Your task to perform on an android device: Go to calendar. Show me events next week Image 0: 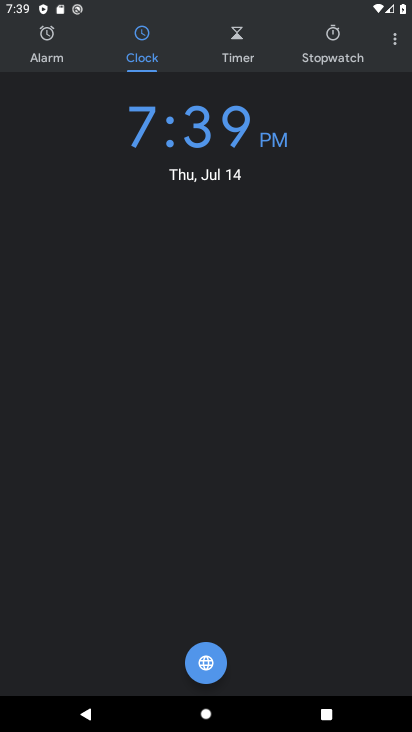
Step 0: press home button
Your task to perform on an android device: Go to calendar. Show me events next week Image 1: 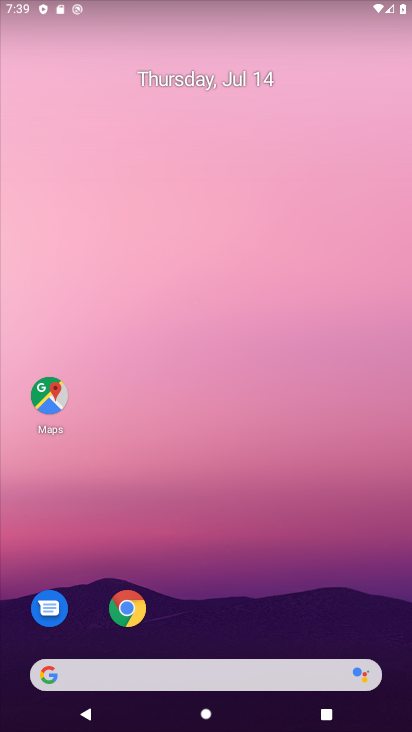
Step 1: drag from (219, 602) to (244, 190)
Your task to perform on an android device: Go to calendar. Show me events next week Image 2: 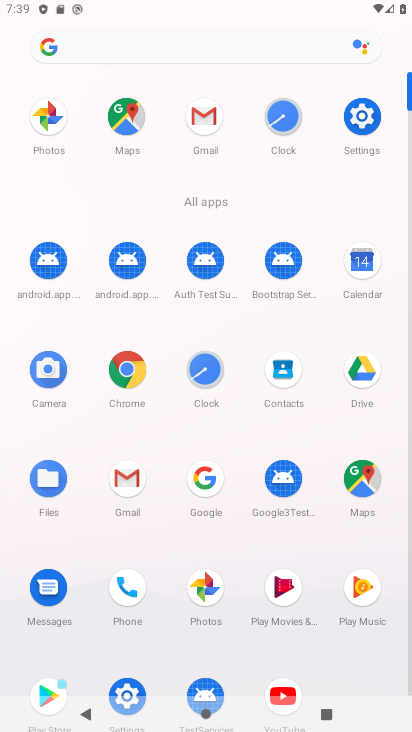
Step 2: click (352, 258)
Your task to perform on an android device: Go to calendar. Show me events next week Image 3: 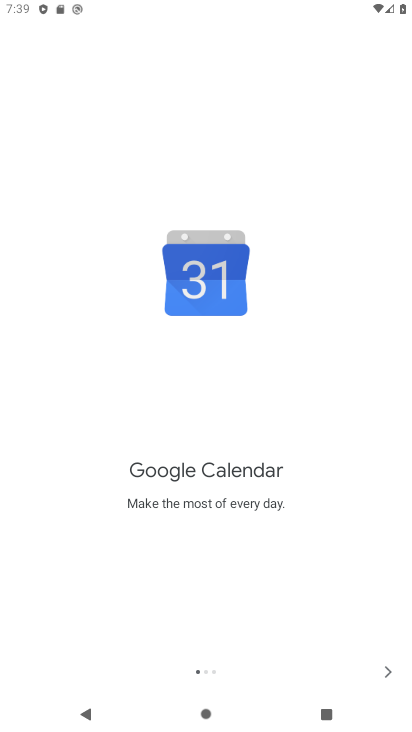
Step 3: click (385, 661)
Your task to perform on an android device: Go to calendar. Show me events next week Image 4: 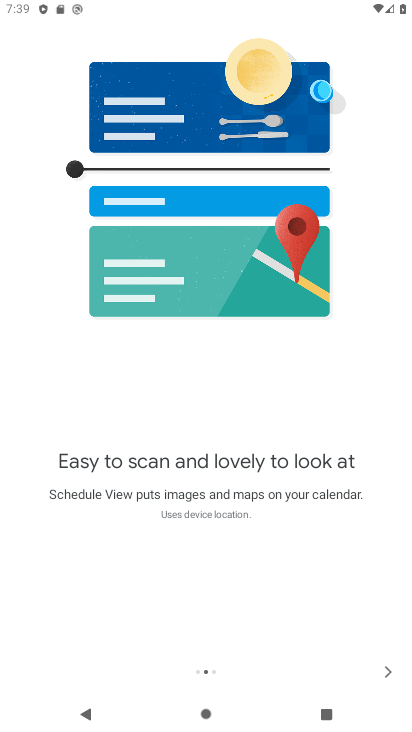
Step 4: click (385, 661)
Your task to perform on an android device: Go to calendar. Show me events next week Image 5: 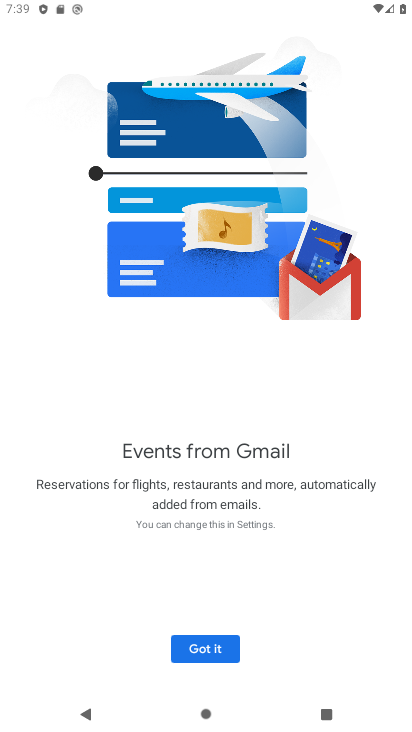
Step 5: click (201, 651)
Your task to perform on an android device: Go to calendar. Show me events next week Image 6: 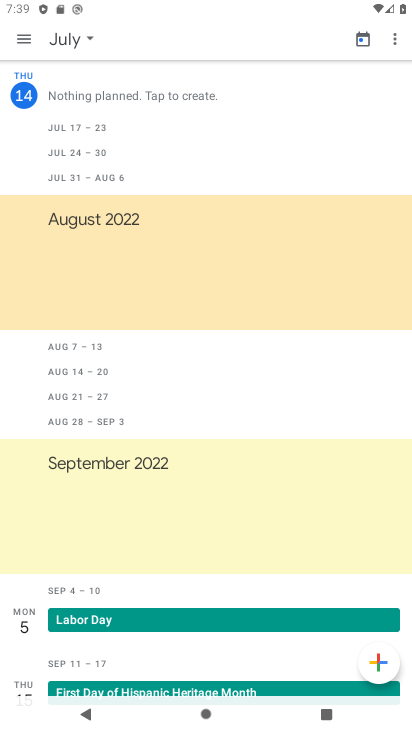
Step 6: click (80, 42)
Your task to perform on an android device: Go to calendar. Show me events next week Image 7: 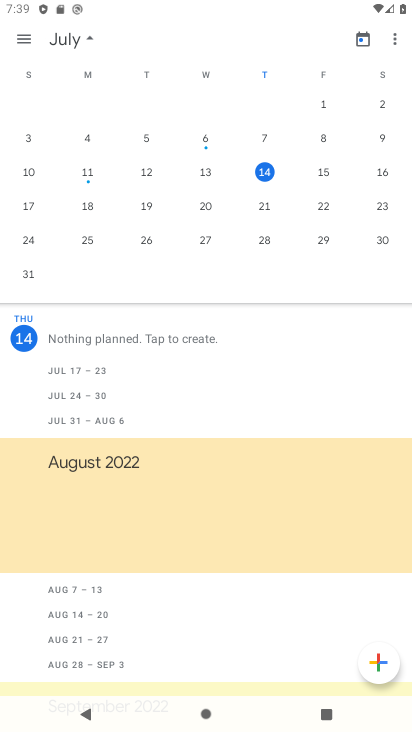
Step 7: click (212, 204)
Your task to perform on an android device: Go to calendar. Show me events next week Image 8: 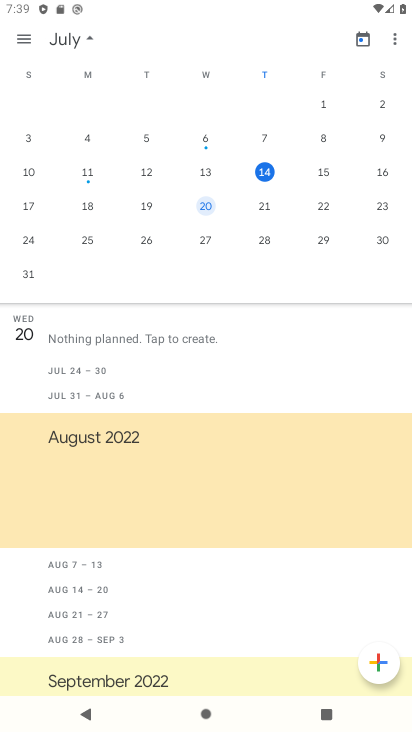
Step 8: task complete